Your task to perform on an android device: change your default location settings in chrome Image 0: 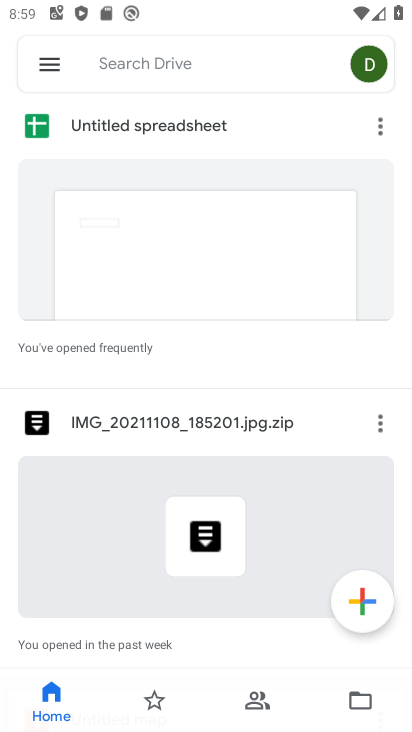
Step 0: press back button
Your task to perform on an android device: change your default location settings in chrome Image 1: 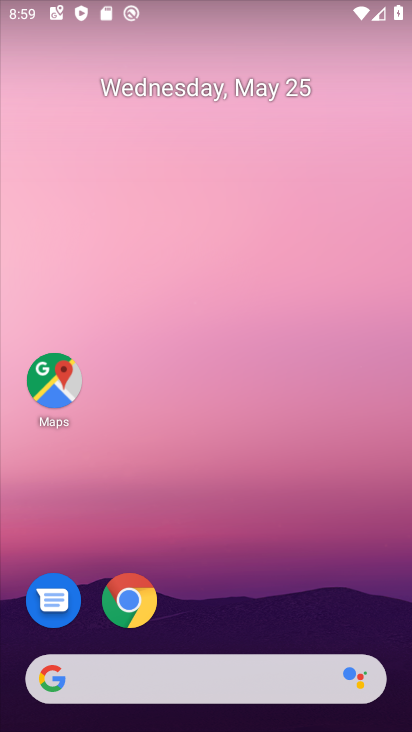
Step 1: drag from (282, 567) to (6, 25)
Your task to perform on an android device: change your default location settings in chrome Image 2: 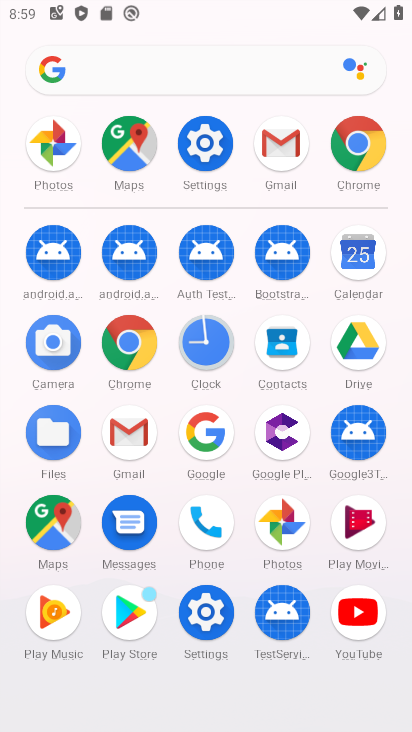
Step 2: drag from (7, 577) to (5, 196)
Your task to perform on an android device: change your default location settings in chrome Image 3: 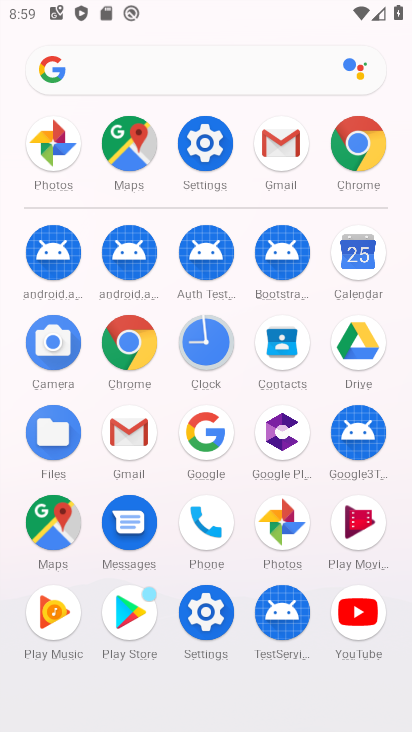
Step 3: click (128, 343)
Your task to perform on an android device: change your default location settings in chrome Image 4: 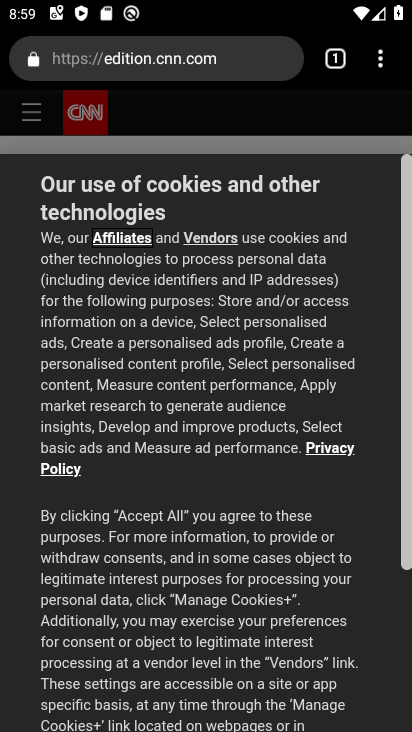
Step 4: drag from (382, 55) to (193, 613)
Your task to perform on an android device: change your default location settings in chrome Image 5: 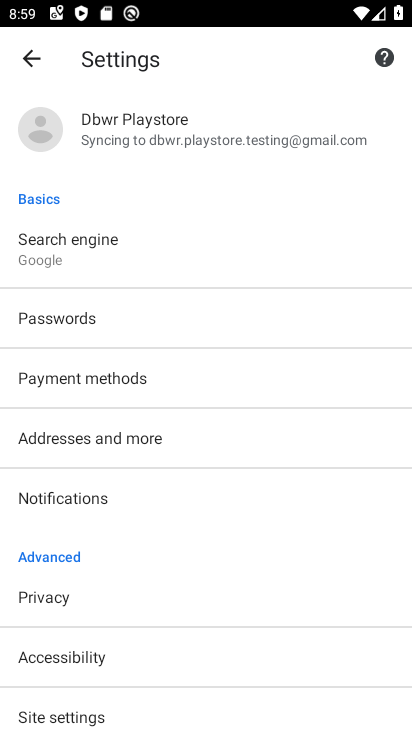
Step 5: drag from (234, 594) to (264, 176)
Your task to perform on an android device: change your default location settings in chrome Image 6: 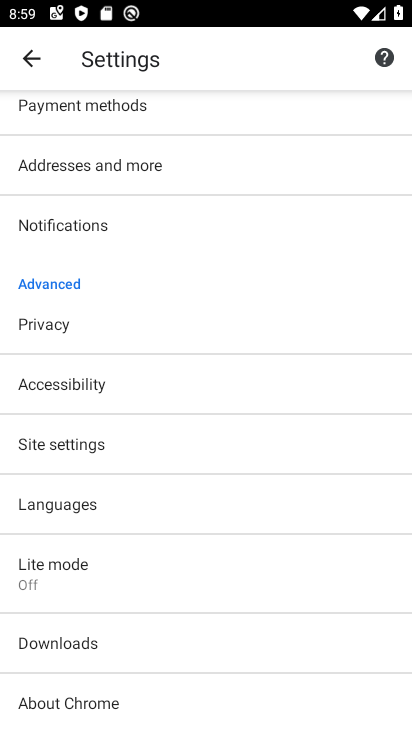
Step 6: drag from (272, 280) to (293, 179)
Your task to perform on an android device: change your default location settings in chrome Image 7: 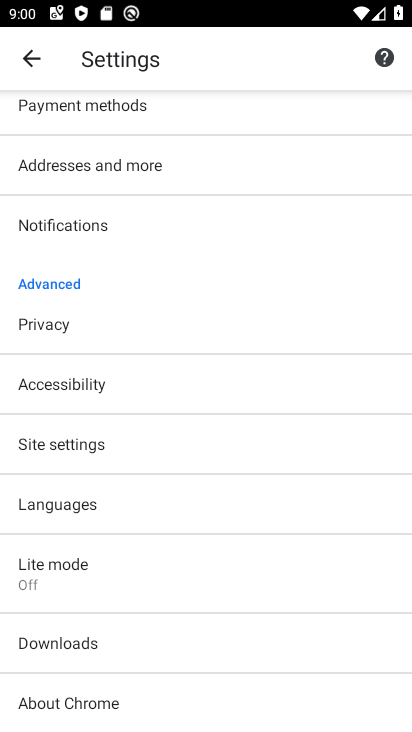
Step 7: click (88, 436)
Your task to perform on an android device: change your default location settings in chrome Image 8: 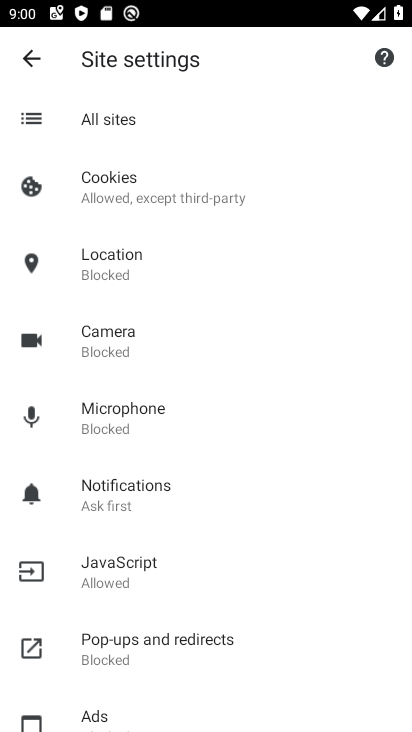
Step 8: click (135, 244)
Your task to perform on an android device: change your default location settings in chrome Image 9: 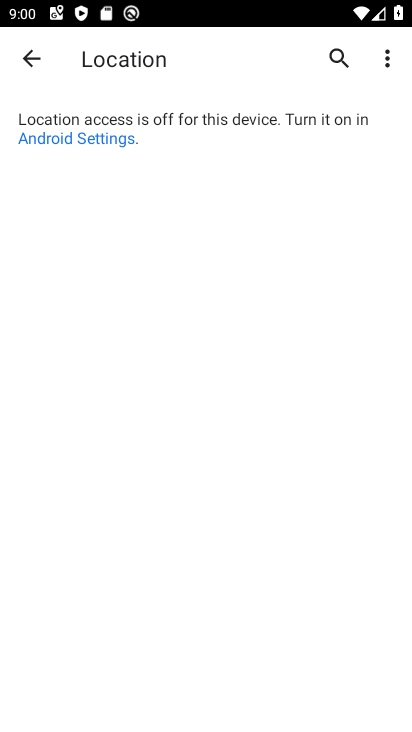
Step 9: click (110, 137)
Your task to perform on an android device: change your default location settings in chrome Image 10: 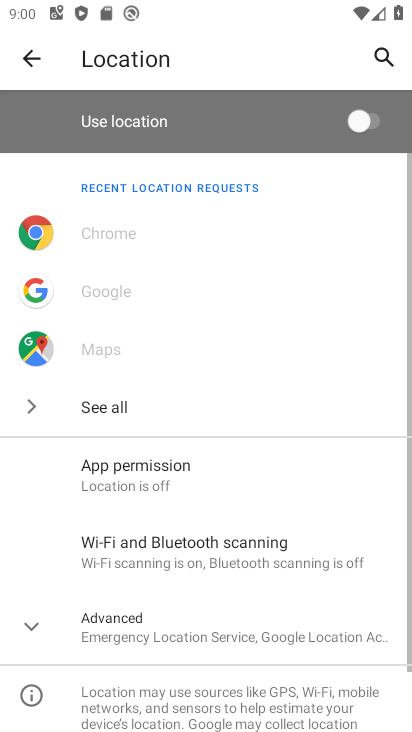
Step 10: click (375, 123)
Your task to perform on an android device: change your default location settings in chrome Image 11: 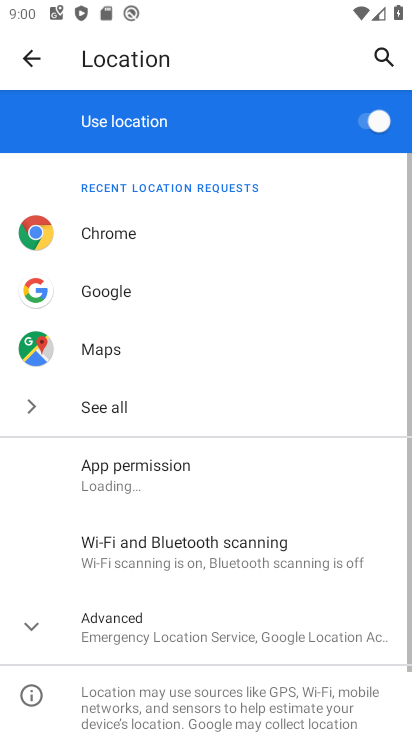
Step 11: click (31, 61)
Your task to perform on an android device: change your default location settings in chrome Image 12: 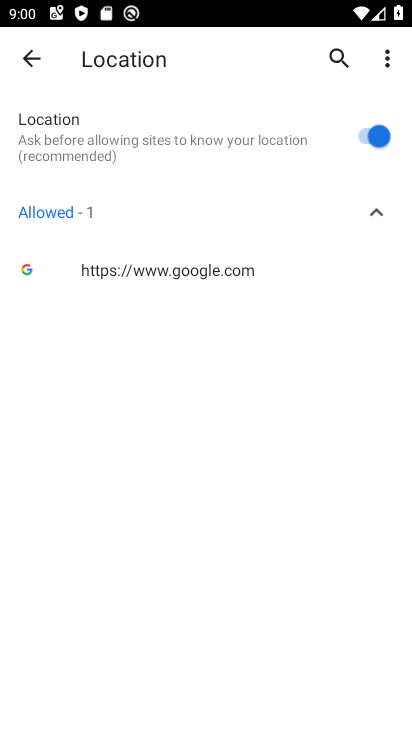
Step 12: click (355, 128)
Your task to perform on an android device: change your default location settings in chrome Image 13: 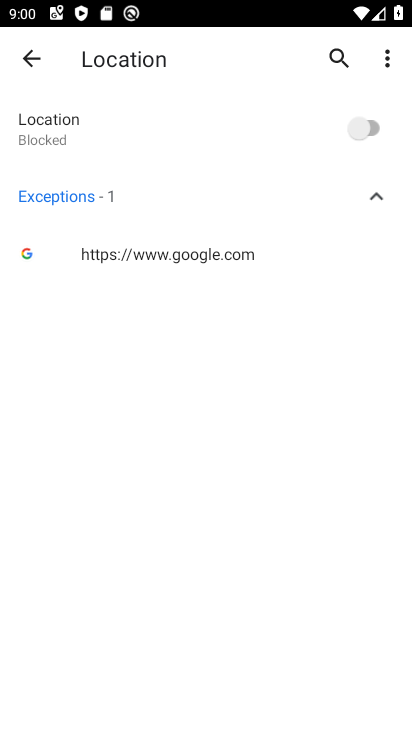
Step 13: task complete